Your task to perform on an android device: Turn off the flashlight Image 0: 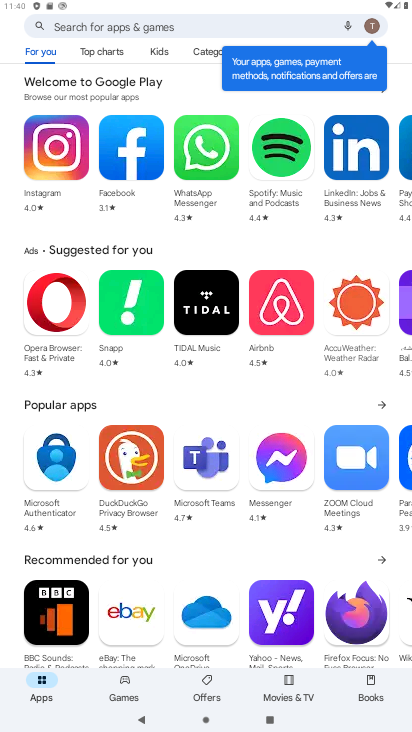
Step 0: press home button
Your task to perform on an android device: Turn off the flashlight Image 1: 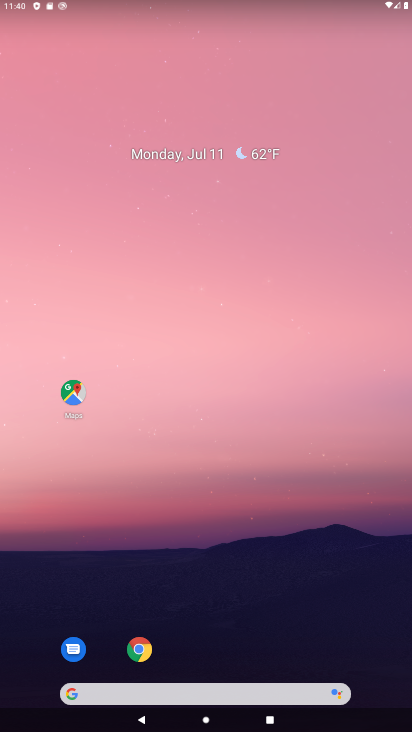
Step 1: drag from (215, 624) to (110, 17)
Your task to perform on an android device: Turn off the flashlight Image 2: 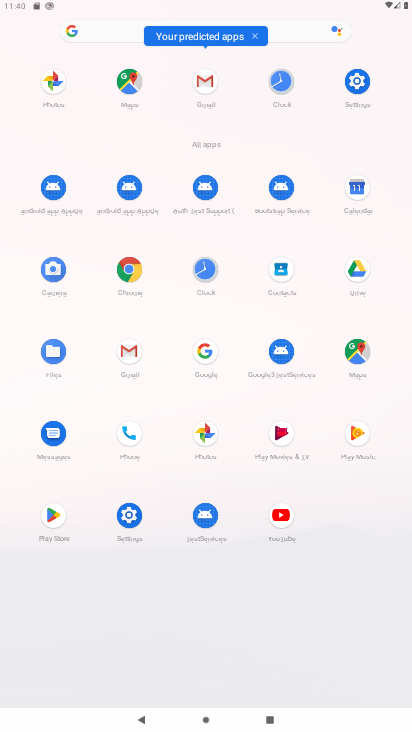
Step 2: click (359, 81)
Your task to perform on an android device: Turn off the flashlight Image 3: 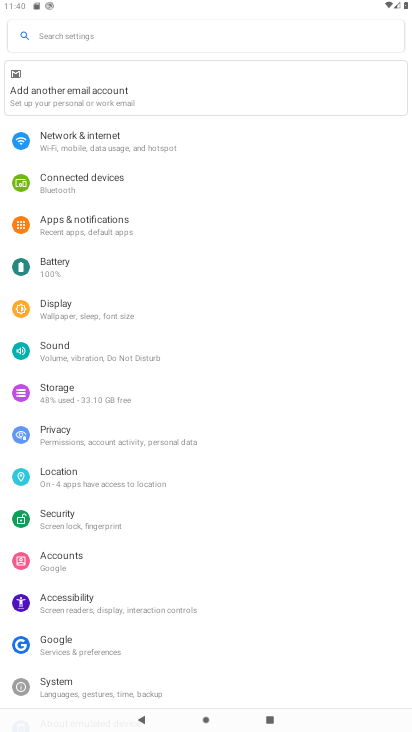
Step 3: click (52, 296)
Your task to perform on an android device: Turn off the flashlight Image 4: 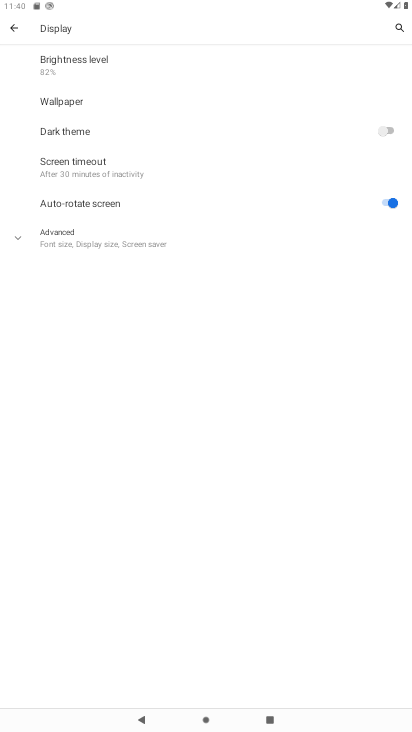
Step 4: task complete